Your task to perform on an android device: open app "Cash App" Image 0: 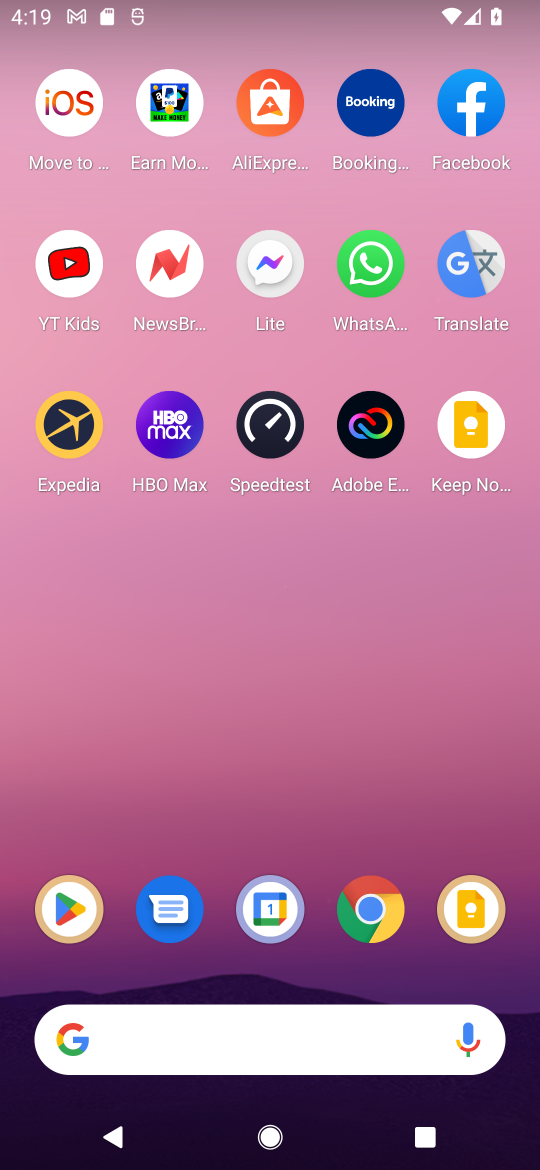
Step 0: click (64, 896)
Your task to perform on an android device: open app "Cash App" Image 1: 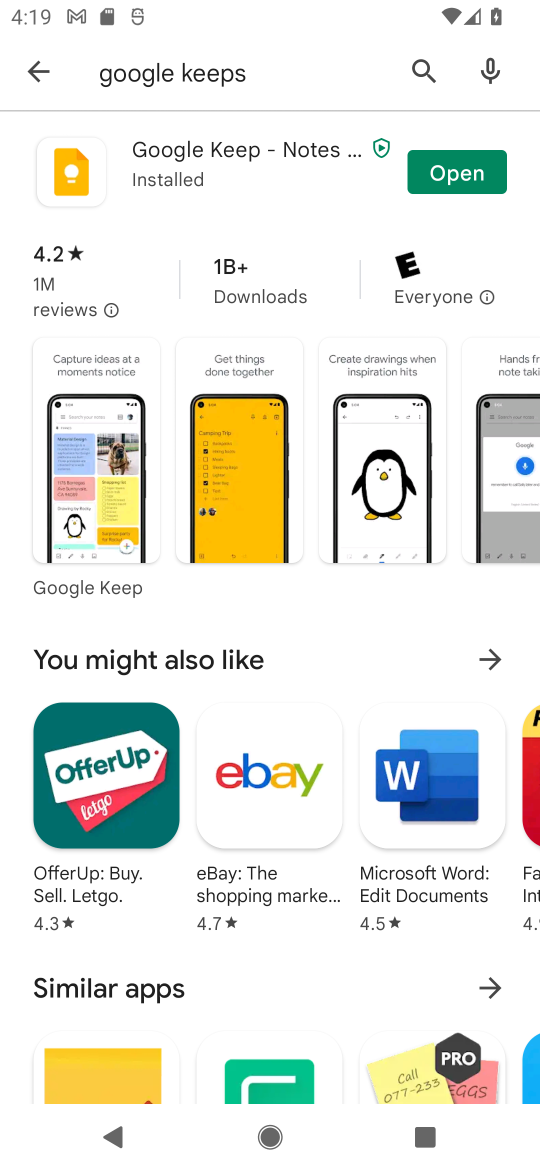
Step 1: click (211, 71)
Your task to perform on an android device: open app "Cash App" Image 2: 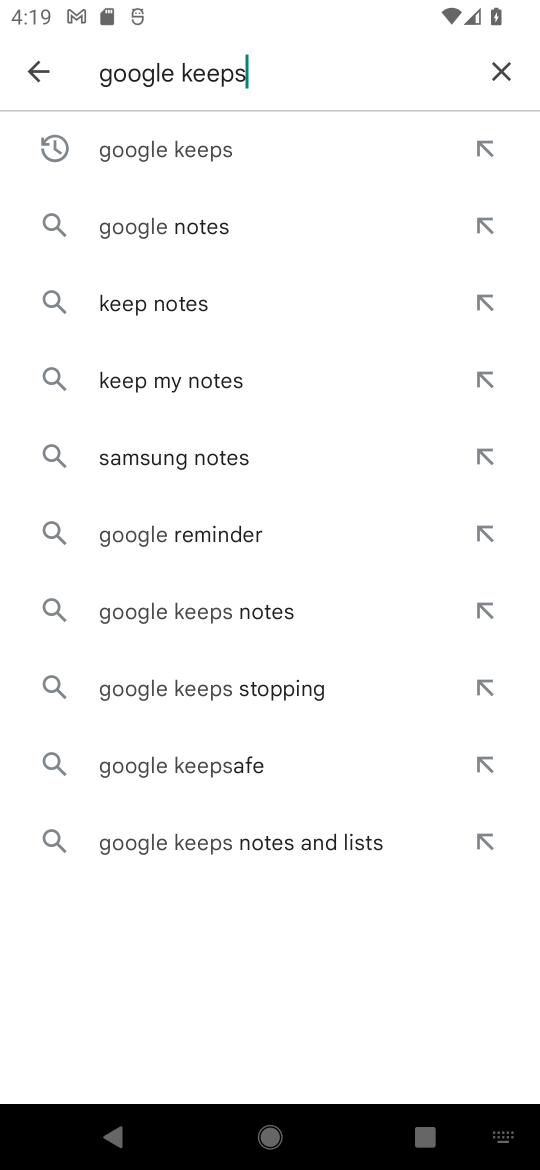
Step 2: click (498, 76)
Your task to perform on an android device: open app "Cash App" Image 3: 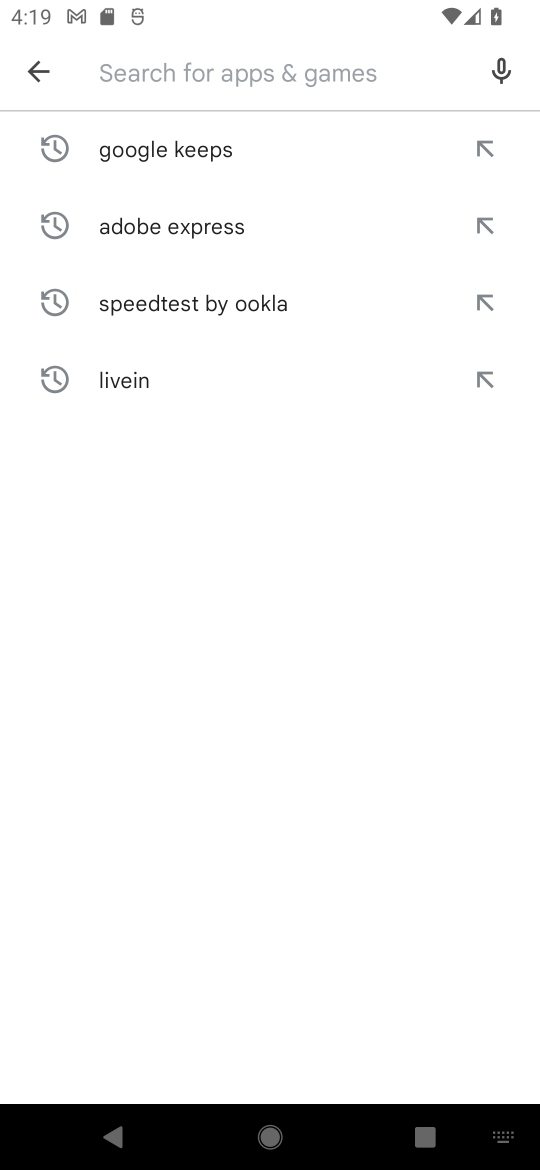
Step 3: type "Cash App"
Your task to perform on an android device: open app "Cash App" Image 4: 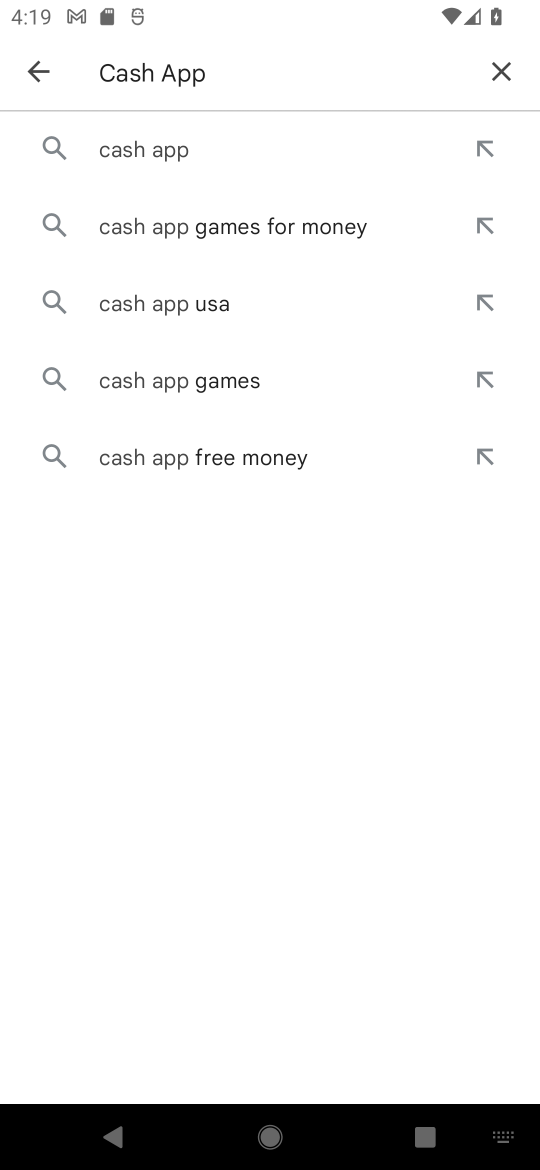
Step 4: click (197, 136)
Your task to perform on an android device: open app "Cash App" Image 5: 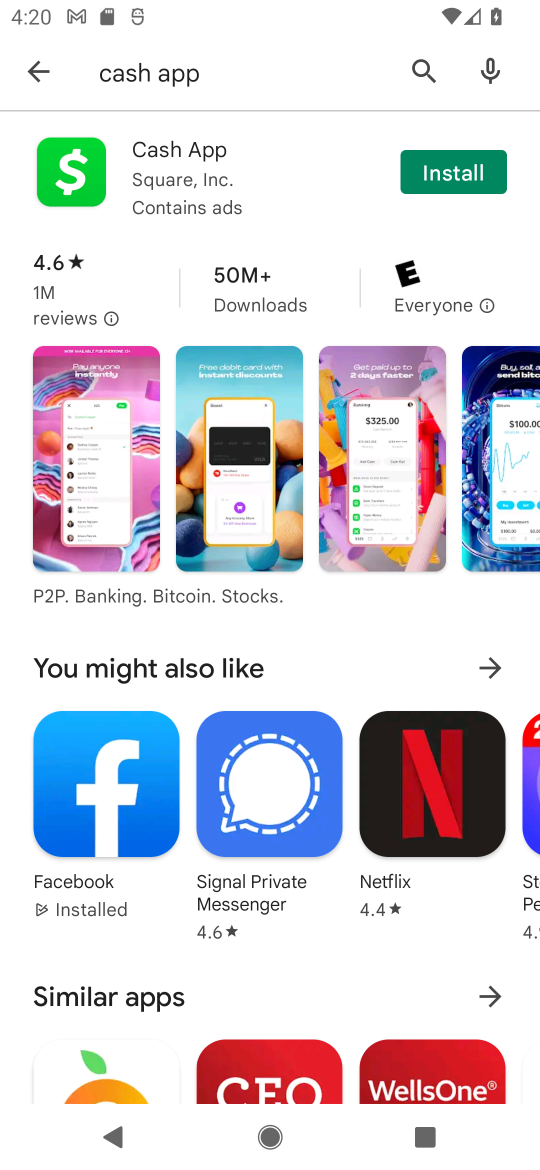
Step 5: task complete